Your task to perform on an android device: toggle sleep mode Image 0: 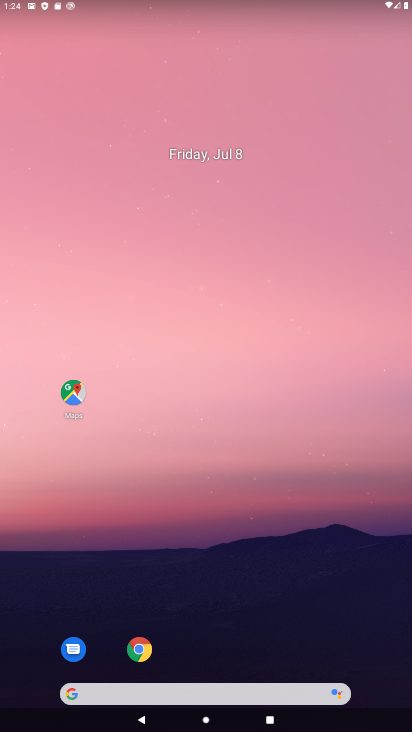
Step 0: drag from (323, 586) to (281, 82)
Your task to perform on an android device: toggle sleep mode Image 1: 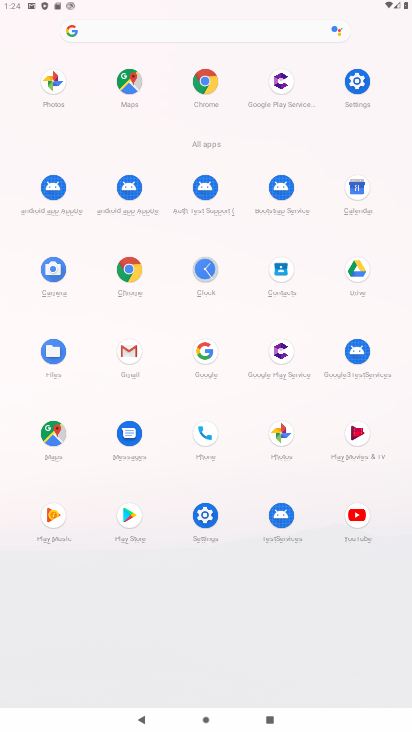
Step 1: click (352, 80)
Your task to perform on an android device: toggle sleep mode Image 2: 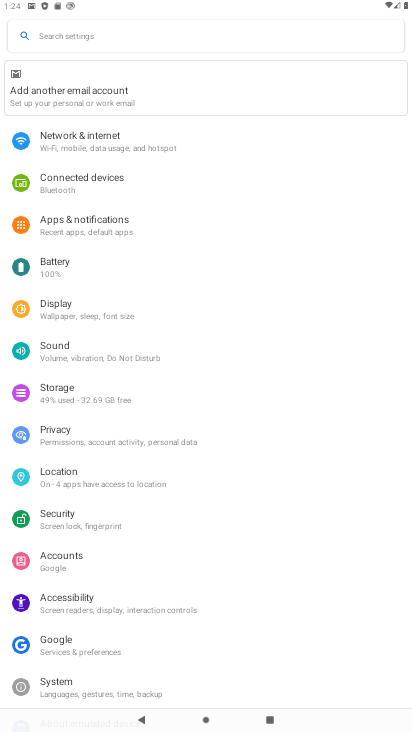
Step 2: click (83, 312)
Your task to perform on an android device: toggle sleep mode Image 3: 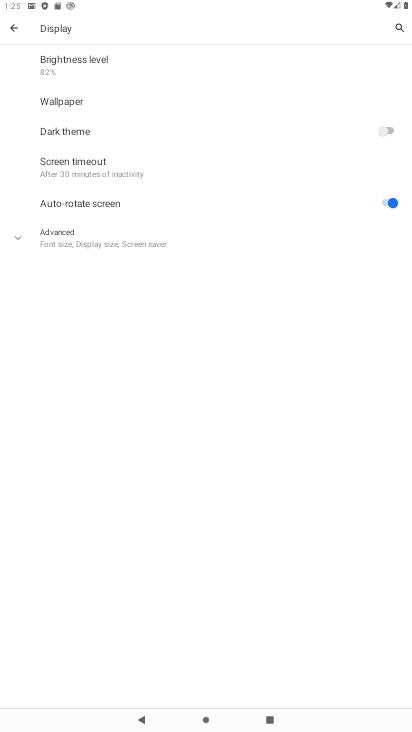
Step 3: click (99, 168)
Your task to perform on an android device: toggle sleep mode Image 4: 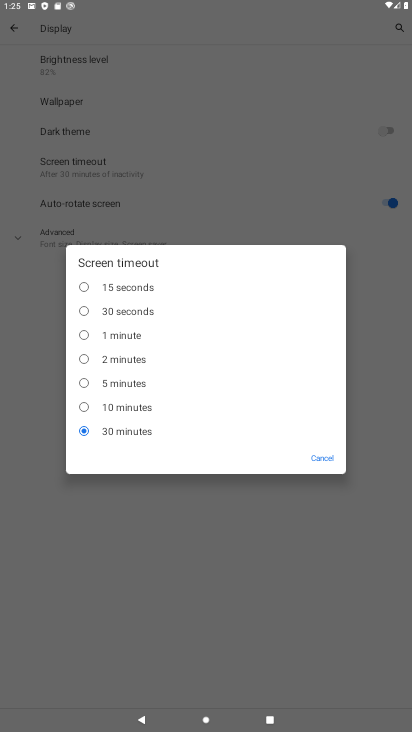
Step 4: click (128, 406)
Your task to perform on an android device: toggle sleep mode Image 5: 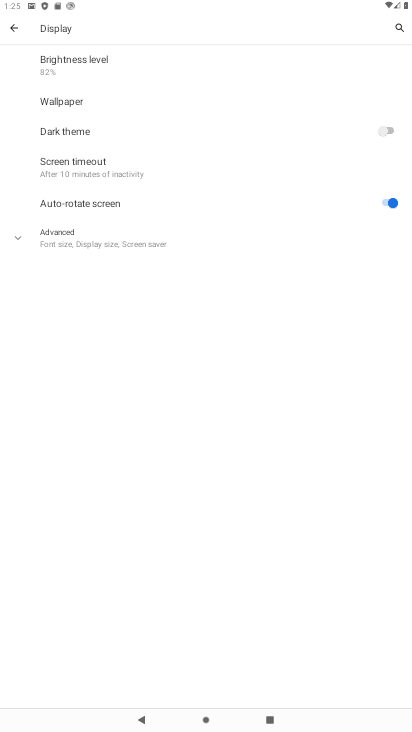
Step 5: task complete